Your task to perform on an android device: Go to Wikipedia Image 0: 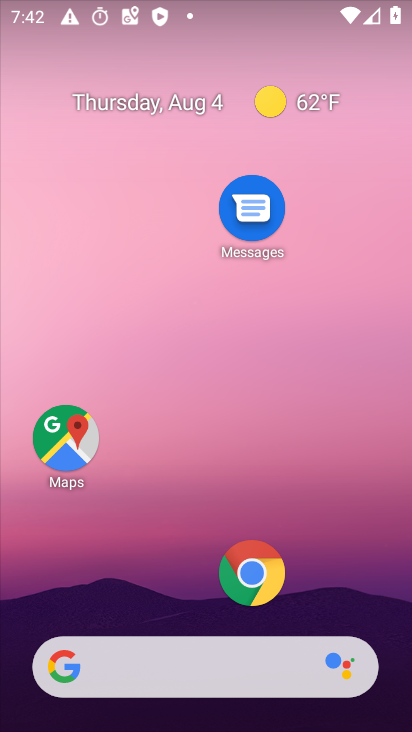
Step 0: click (50, 674)
Your task to perform on an android device: Go to Wikipedia Image 1: 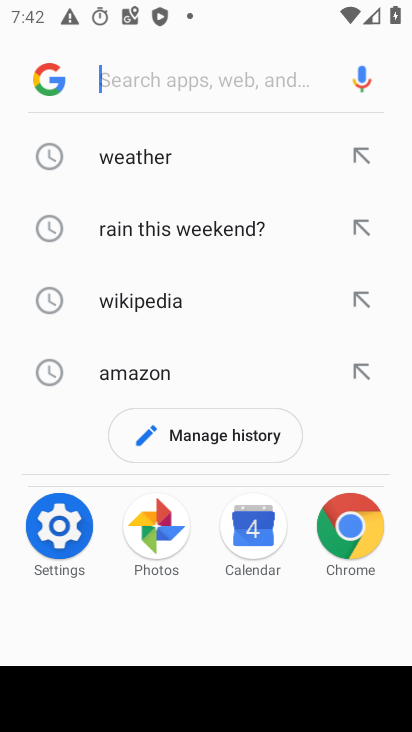
Step 1: click (131, 295)
Your task to perform on an android device: Go to Wikipedia Image 2: 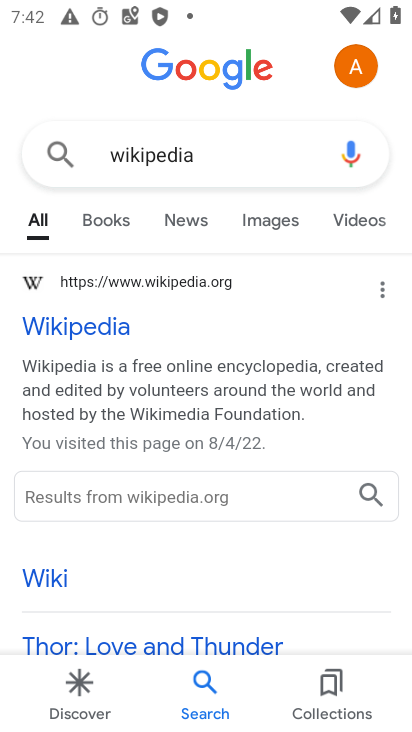
Step 2: click (68, 323)
Your task to perform on an android device: Go to Wikipedia Image 3: 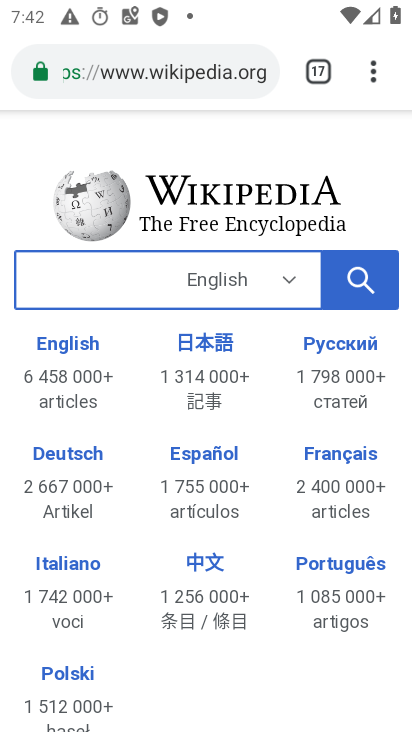
Step 3: task complete